Your task to perform on an android device: turn on javascript in the chrome app Image 0: 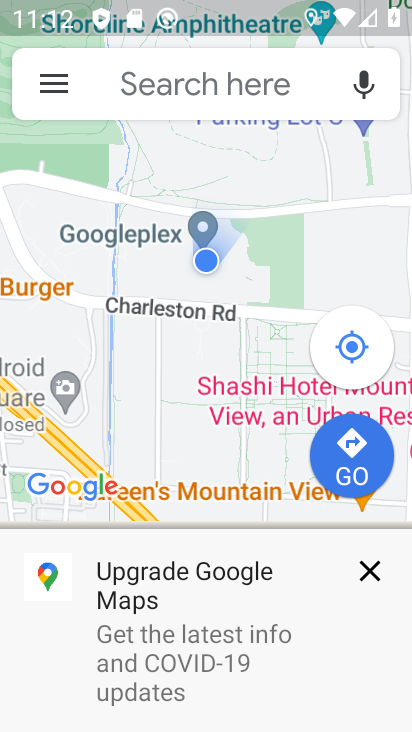
Step 0: press home button
Your task to perform on an android device: turn on javascript in the chrome app Image 1: 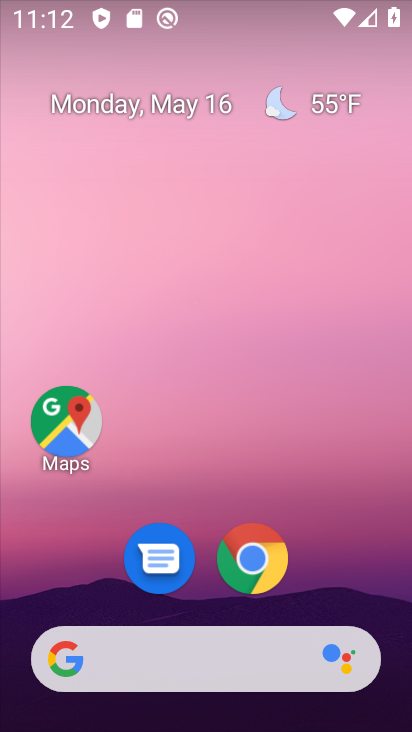
Step 1: click (256, 559)
Your task to perform on an android device: turn on javascript in the chrome app Image 2: 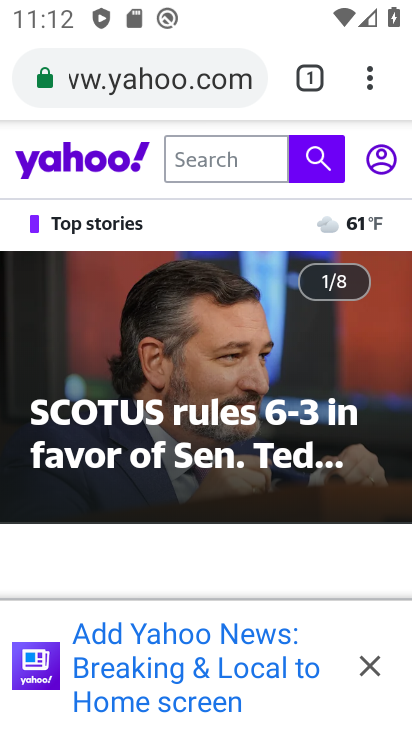
Step 2: click (364, 82)
Your task to perform on an android device: turn on javascript in the chrome app Image 3: 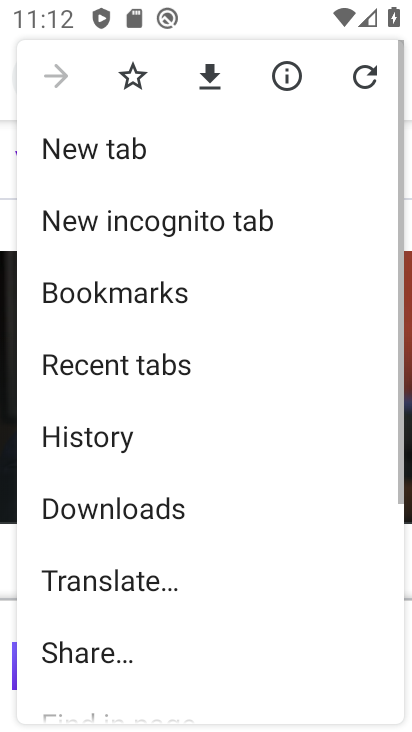
Step 3: drag from (181, 519) to (197, 179)
Your task to perform on an android device: turn on javascript in the chrome app Image 4: 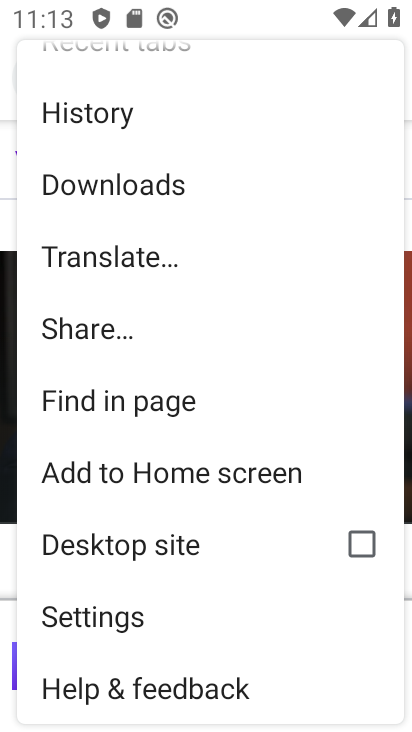
Step 4: click (128, 621)
Your task to perform on an android device: turn on javascript in the chrome app Image 5: 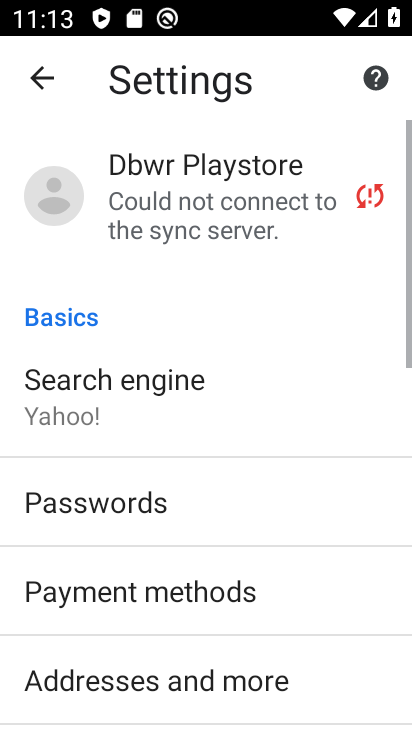
Step 5: drag from (229, 620) to (272, 194)
Your task to perform on an android device: turn on javascript in the chrome app Image 6: 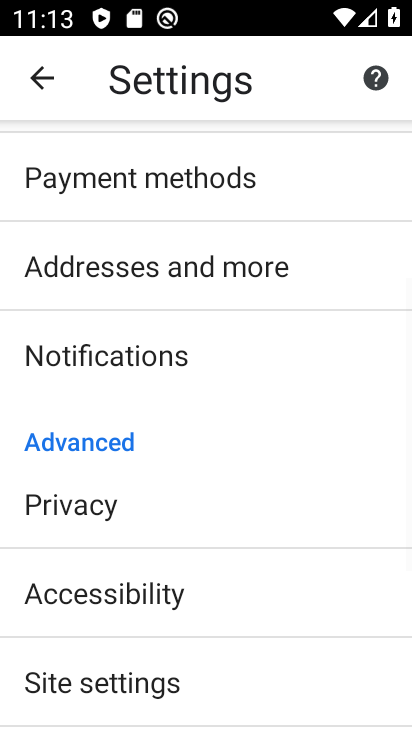
Step 6: drag from (200, 560) to (206, 401)
Your task to perform on an android device: turn on javascript in the chrome app Image 7: 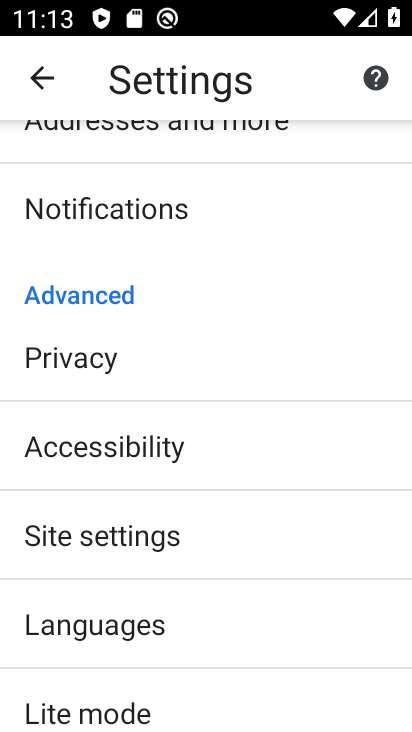
Step 7: click (125, 538)
Your task to perform on an android device: turn on javascript in the chrome app Image 8: 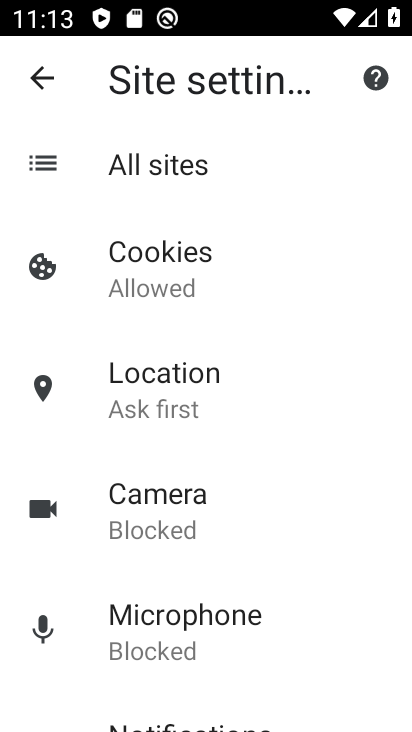
Step 8: drag from (276, 559) to (253, 234)
Your task to perform on an android device: turn on javascript in the chrome app Image 9: 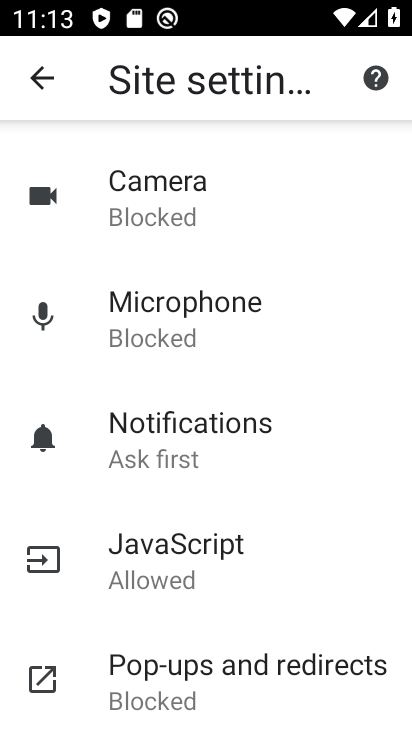
Step 9: click (188, 560)
Your task to perform on an android device: turn on javascript in the chrome app Image 10: 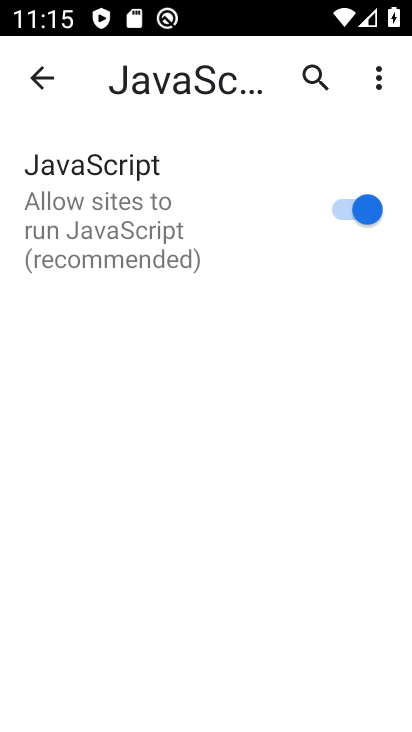
Step 10: task complete